Your task to perform on an android device: Open calendar and show me the third week of next month Image 0: 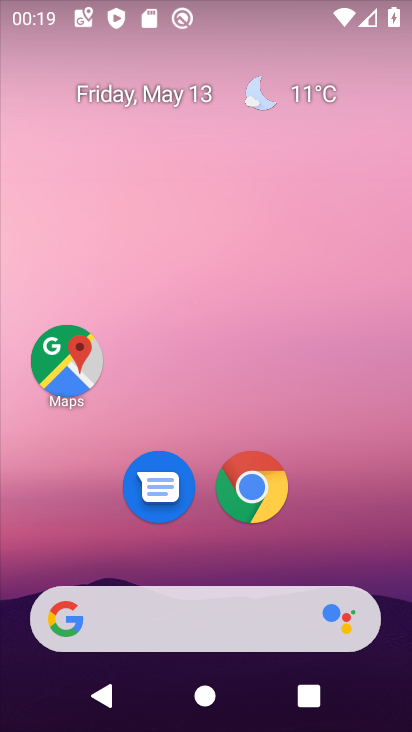
Step 0: click (135, 85)
Your task to perform on an android device: Open calendar and show me the third week of next month Image 1: 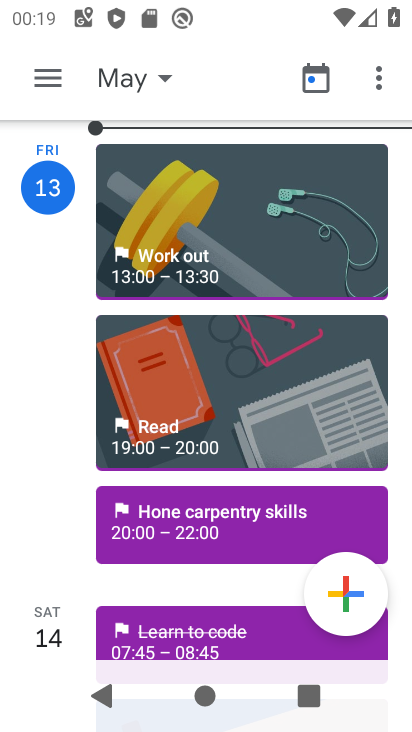
Step 1: click (179, 81)
Your task to perform on an android device: Open calendar and show me the third week of next month Image 2: 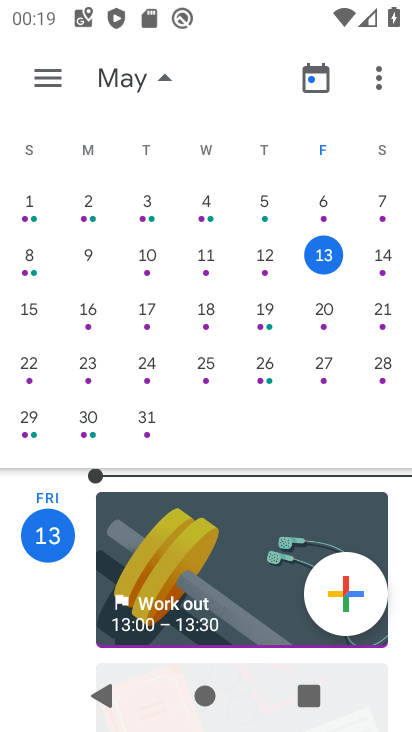
Step 2: drag from (347, 433) to (33, 383)
Your task to perform on an android device: Open calendar and show me the third week of next month Image 3: 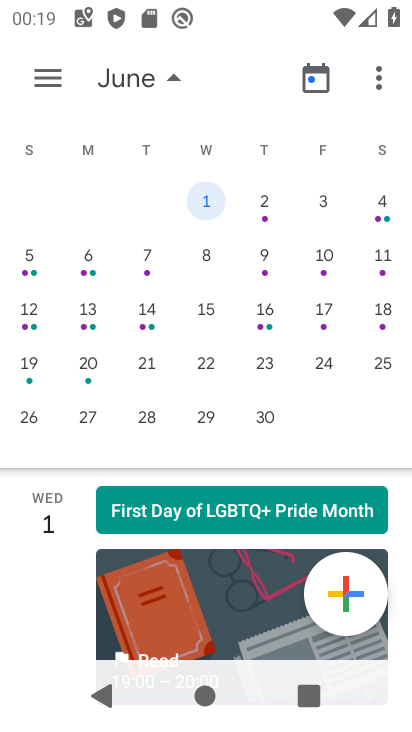
Step 3: click (259, 310)
Your task to perform on an android device: Open calendar and show me the third week of next month Image 4: 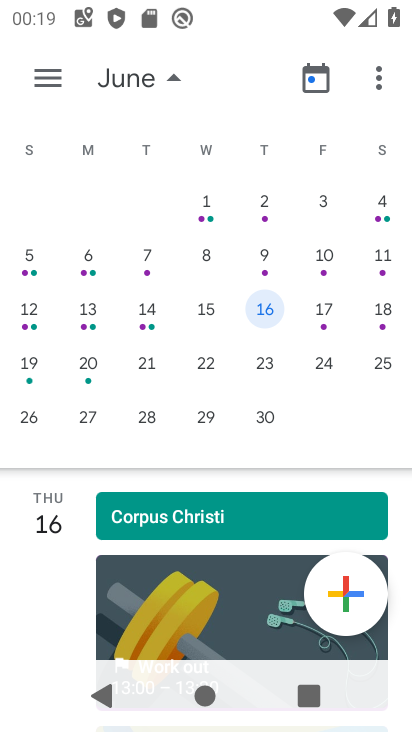
Step 4: task complete